Your task to perform on an android device: Go to Reddit.com Image 0: 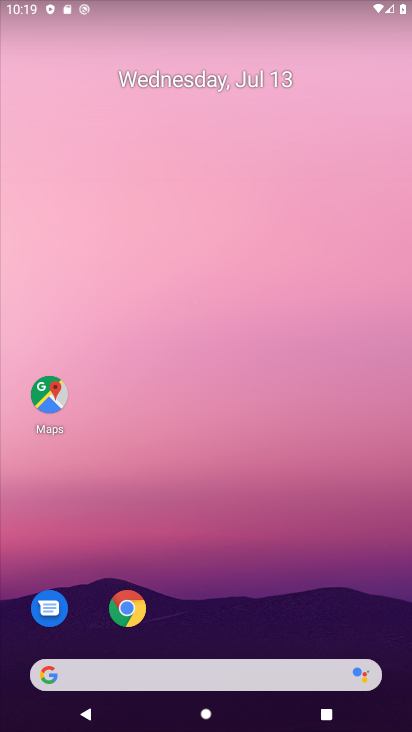
Step 0: press home button
Your task to perform on an android device: Go to Reddit.com Image 1: 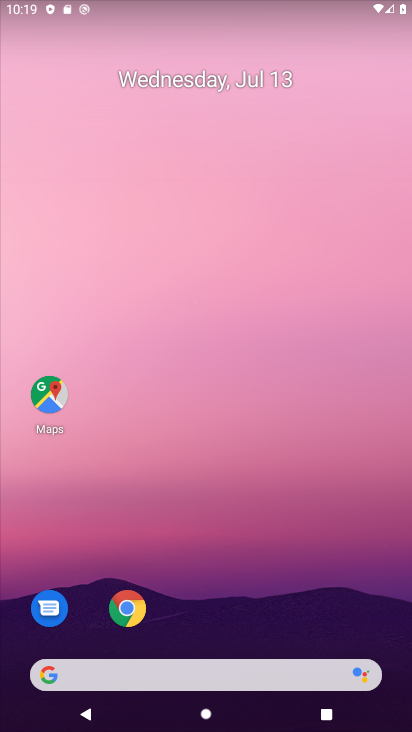
Step 1: press home button
Your task to perform on an android device: Go to Reddit.com Image 2: 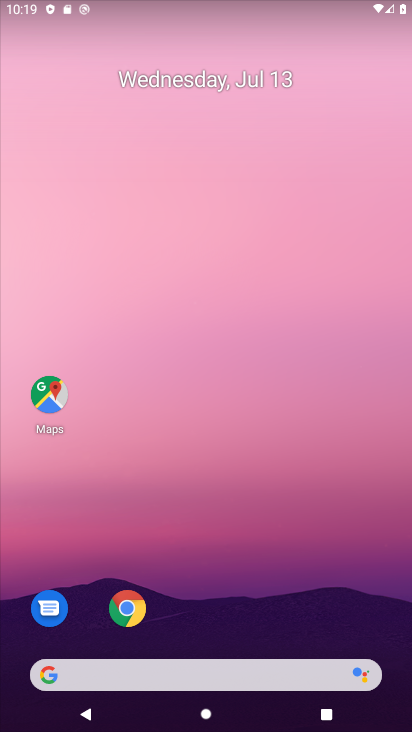
Step 2: click (57, 671)
Your task to perform on an android device: Go to Reddit.com Image 3: 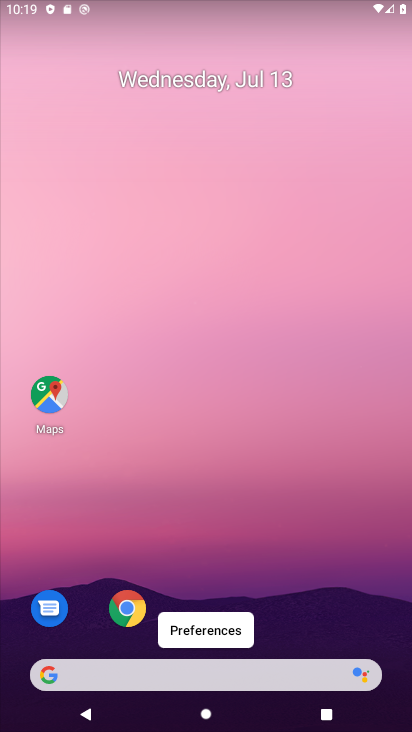
Step 3: click (52, 681)
Your task to perform on an android device: Go to Reddit.com Image 4: 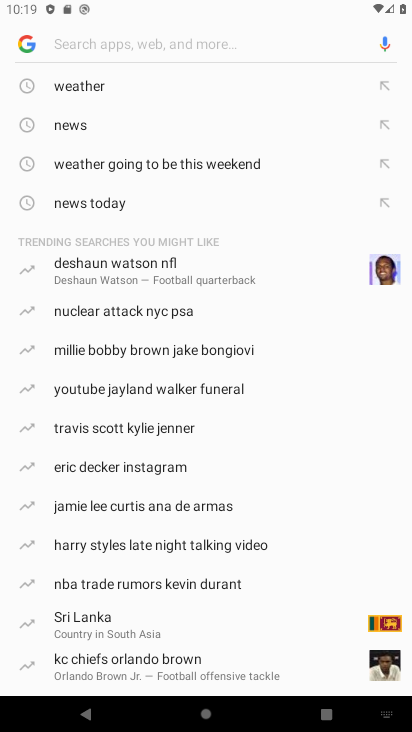
Step 4: click (81, 42)
Your task to perform on an android device: Go to Reddit.com Image 5: 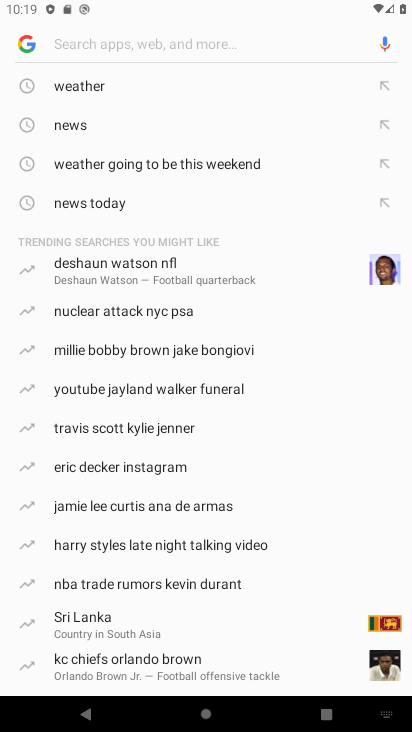
Step 5: type "Reddit.com"
Your task to perform on an android device: Go to Reddit.com Image 6: 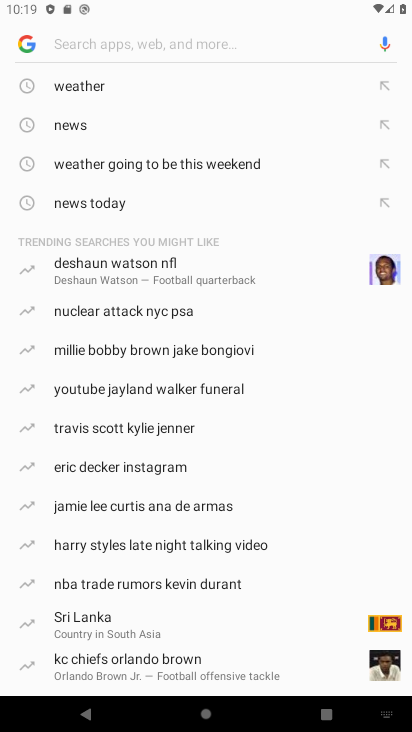
Step 6: click (81, 42)
Your task to perform on an android device: Go to Reddit.com Image 7: 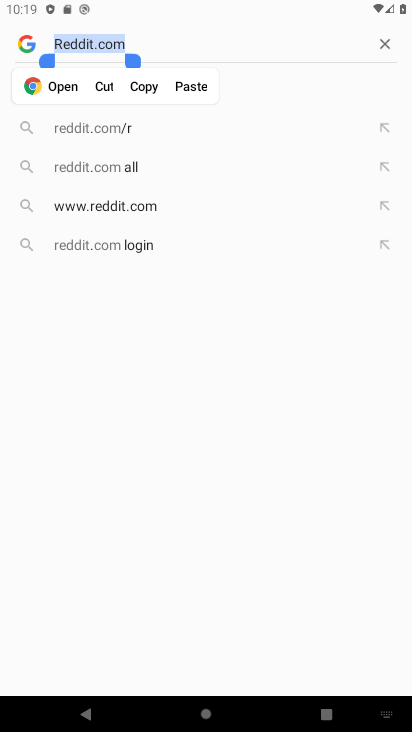
Step 7: click (124, 206)
Your task to perform on an android device: Go to Reddit.com Image 8: 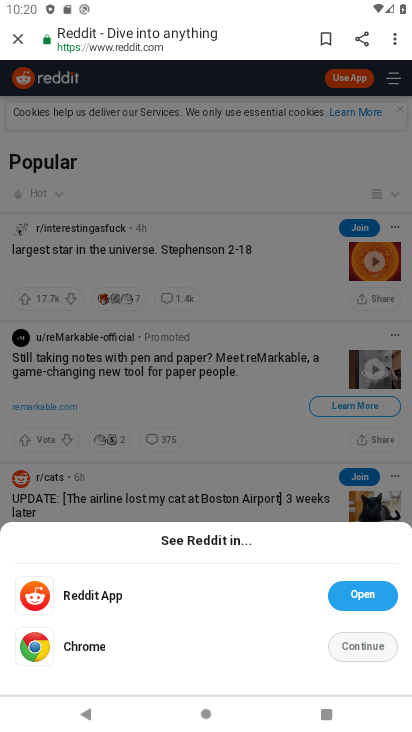
Step 8: task complete